Your task to perform on an android device: Empty the shopping cart on amazon.com. Add bose soundlink to the cart on amazon.com Image 0: 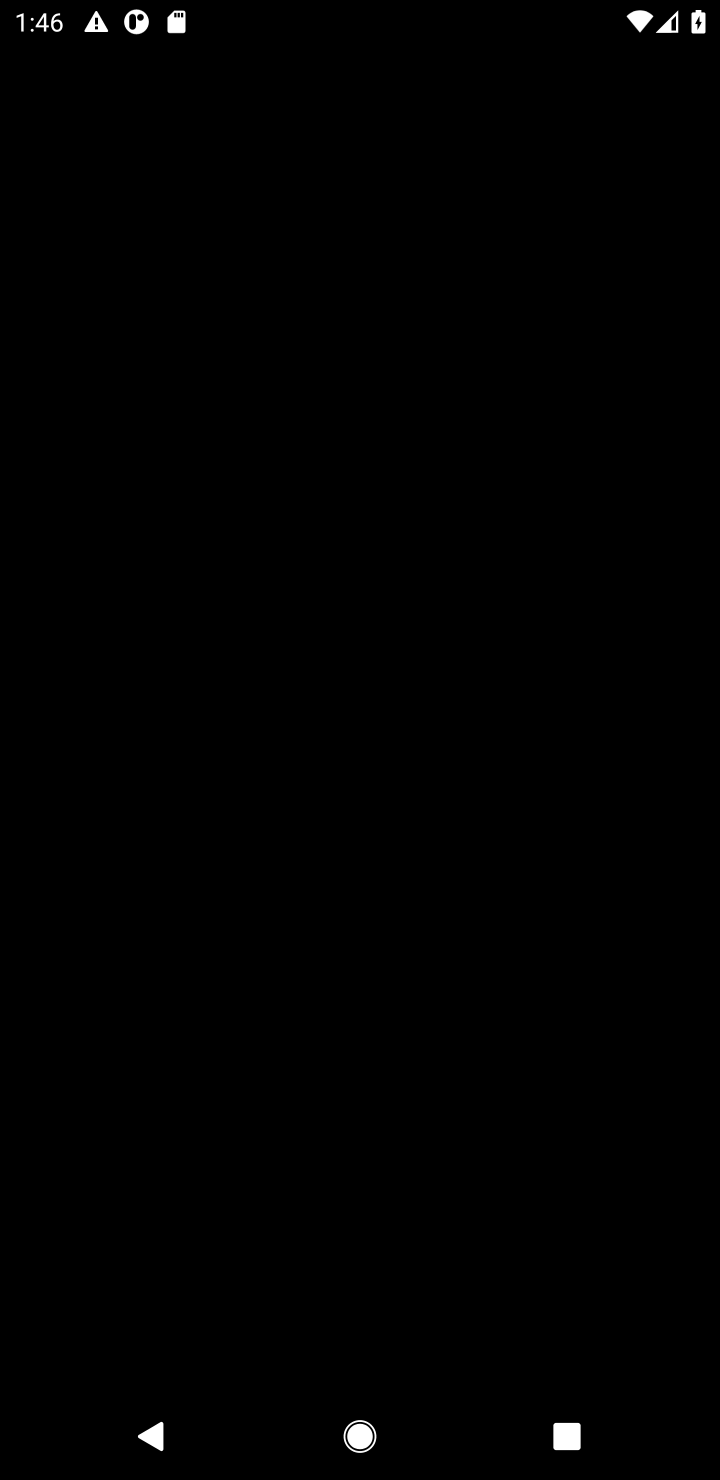
Step 0: press home button
Your task to perform on an android device: Empty the shopping cart on amazon.com. Add bose soundlink to the cart on amazon.com Image 1: 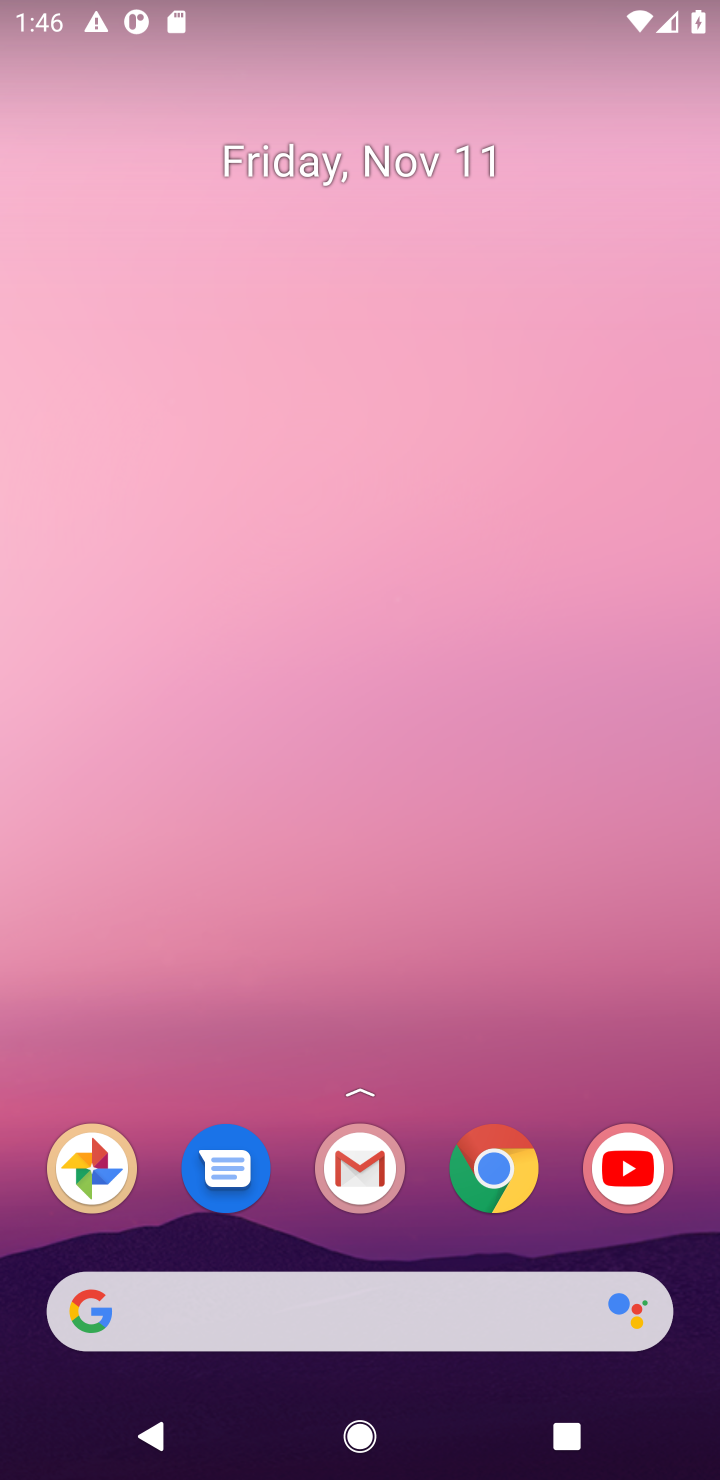
Step 1: click (485, 1179)
Your task to perform on an android device: Empty the shopping cart on amazon.com. Add bose soundlink to the cart on amazon.com Image 2: 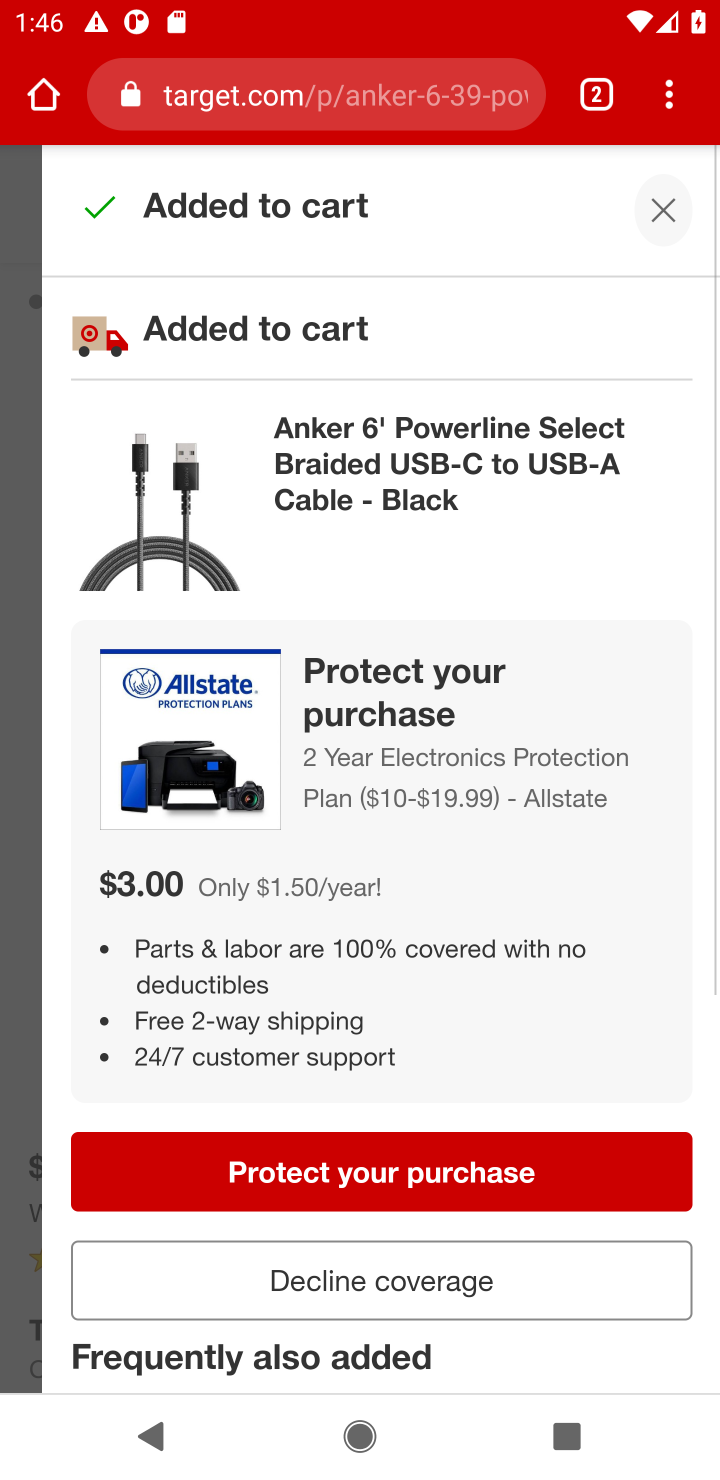
Step 2: click (354, 84)
Your task to perform on an android device: Empty the shopping cart on amazon.com. Add bose soundlink to the cart on amazon.com Image 3: 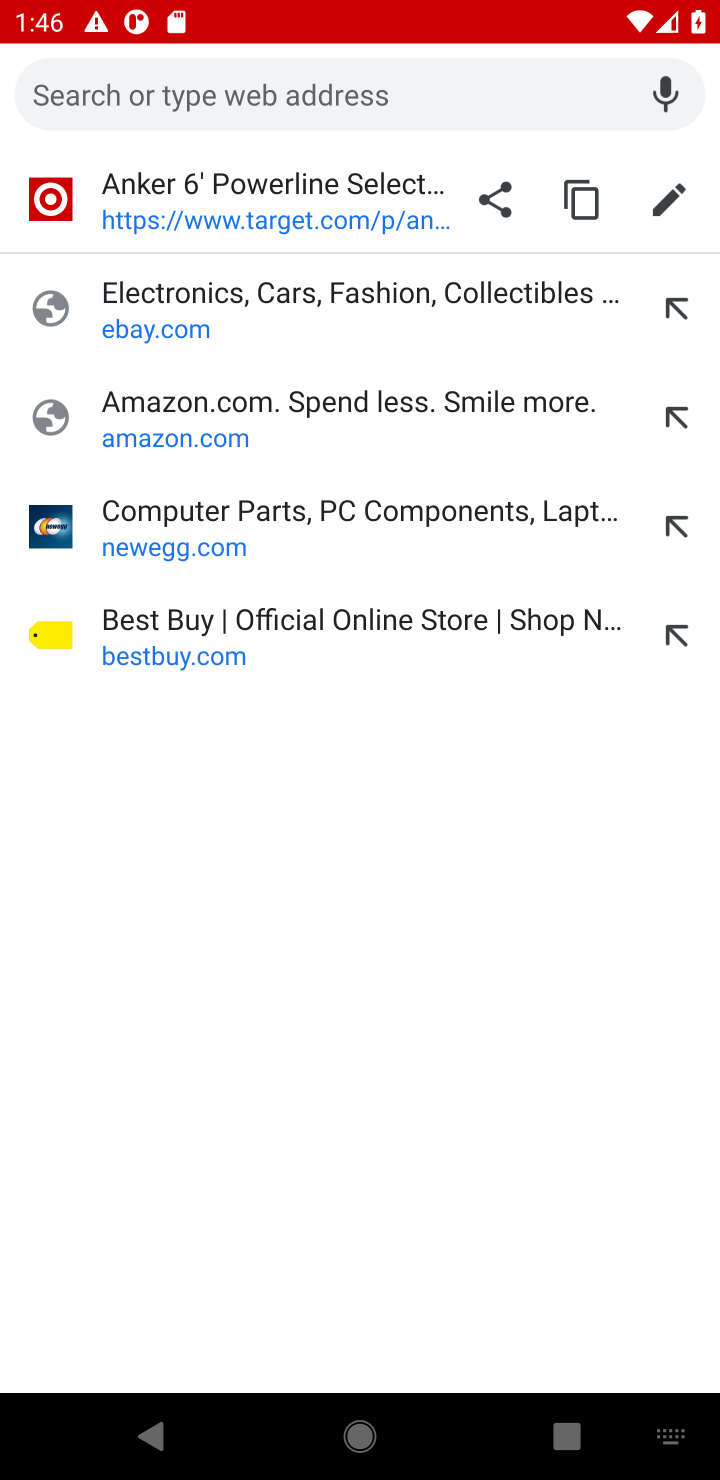
Step 3: click (195, 423)
Your task to perform on an android device: Empty the shopping cart on amazon.com. Add bose soundlink to the cart on amazon.com Image 4: 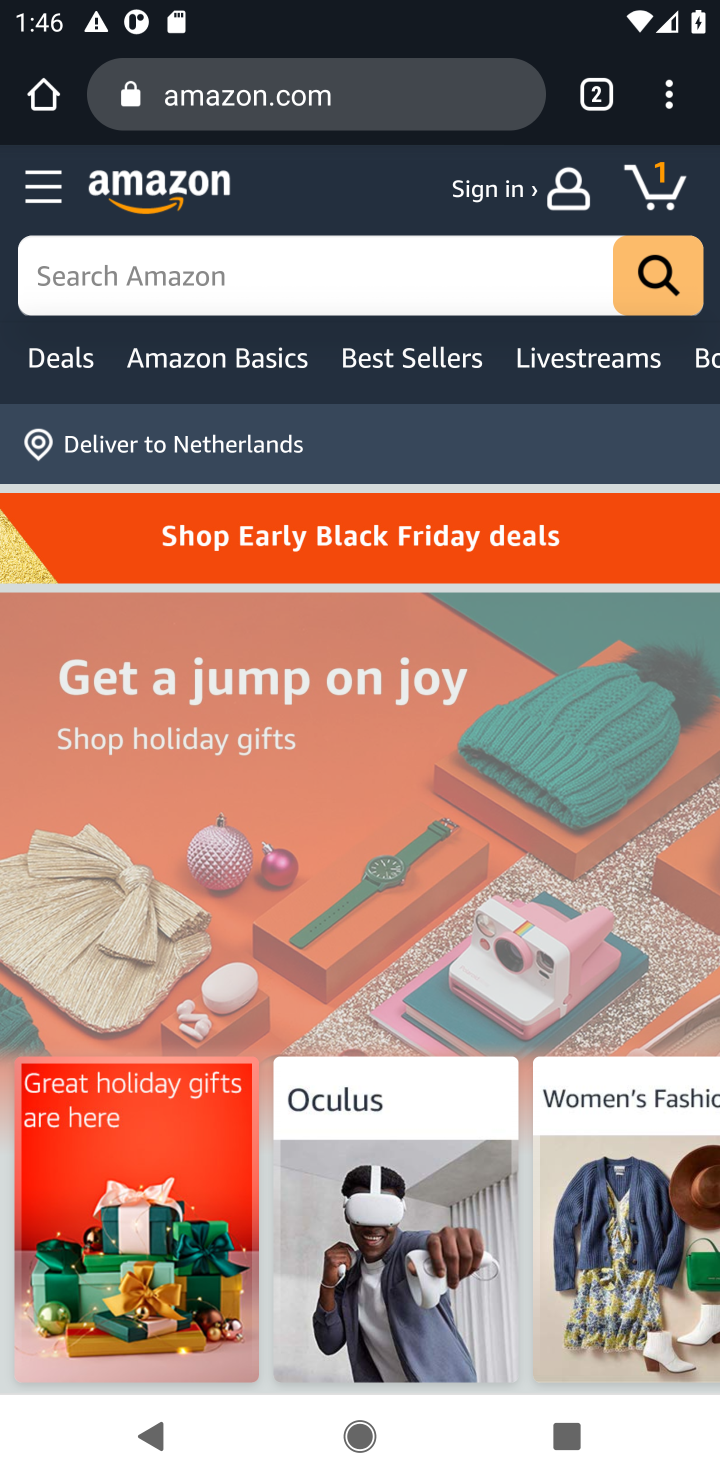
Step 4: click (654, 193)
Your task to perform on an android device: Empty the shopping cart on amazon.com. Add bose soundlink to the cart on amazon.com Image 5: 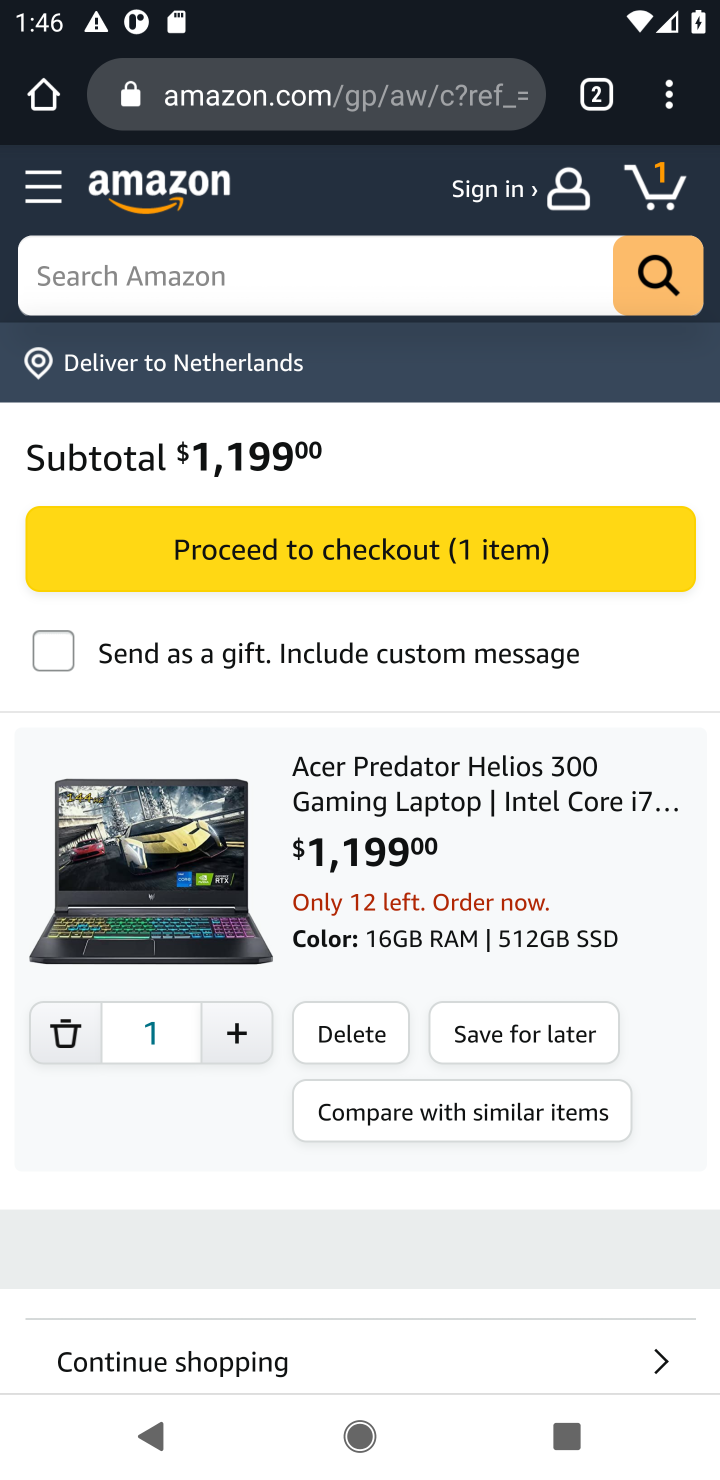
Step 5: click (332, 1033)
Your task to perform on an android device: Empty the shopping cart on amazon.com. Add bose soundlink to the cart on amazon.com Image 6: 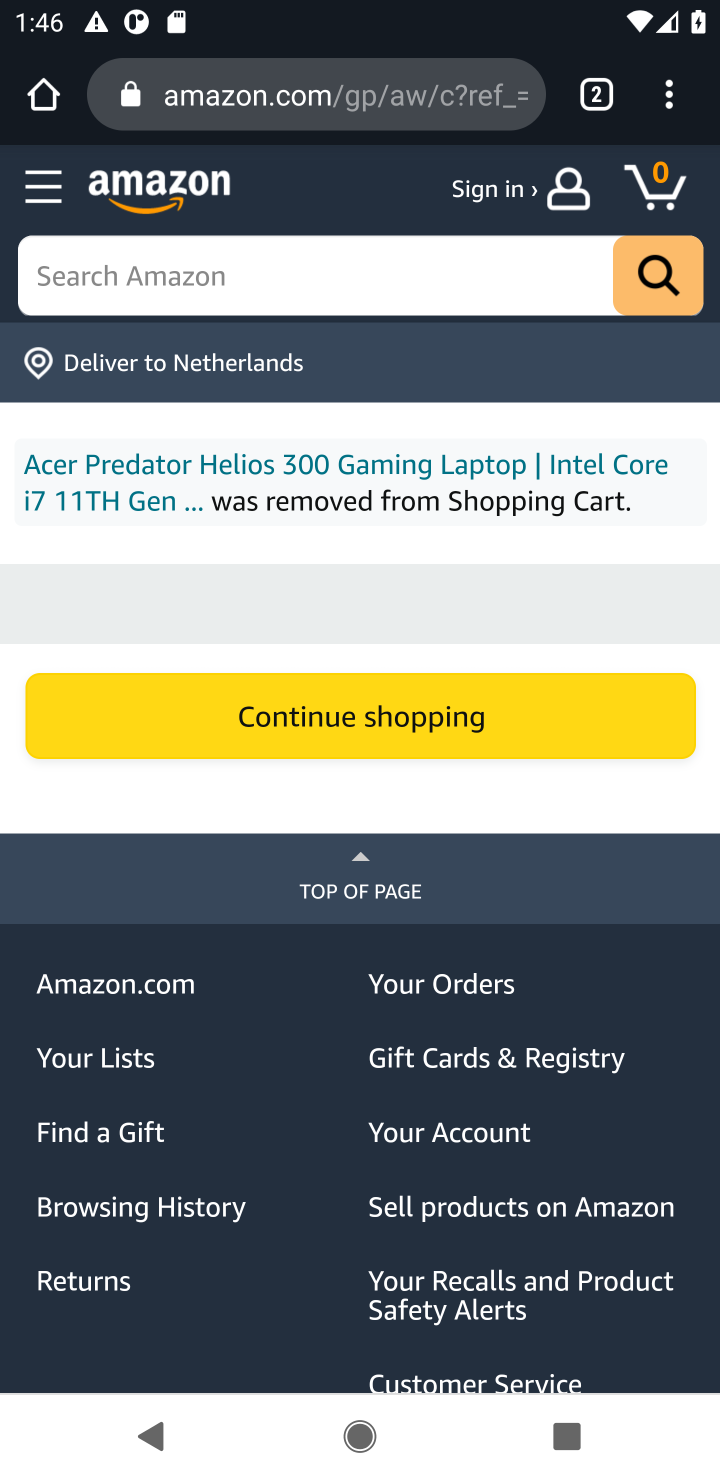
Step 6: click (177, 274)
Your task to perform on an android device: Empty the shopping cart on amazon.com. Add bose soundlink to the cart on amazon.com Image 7: 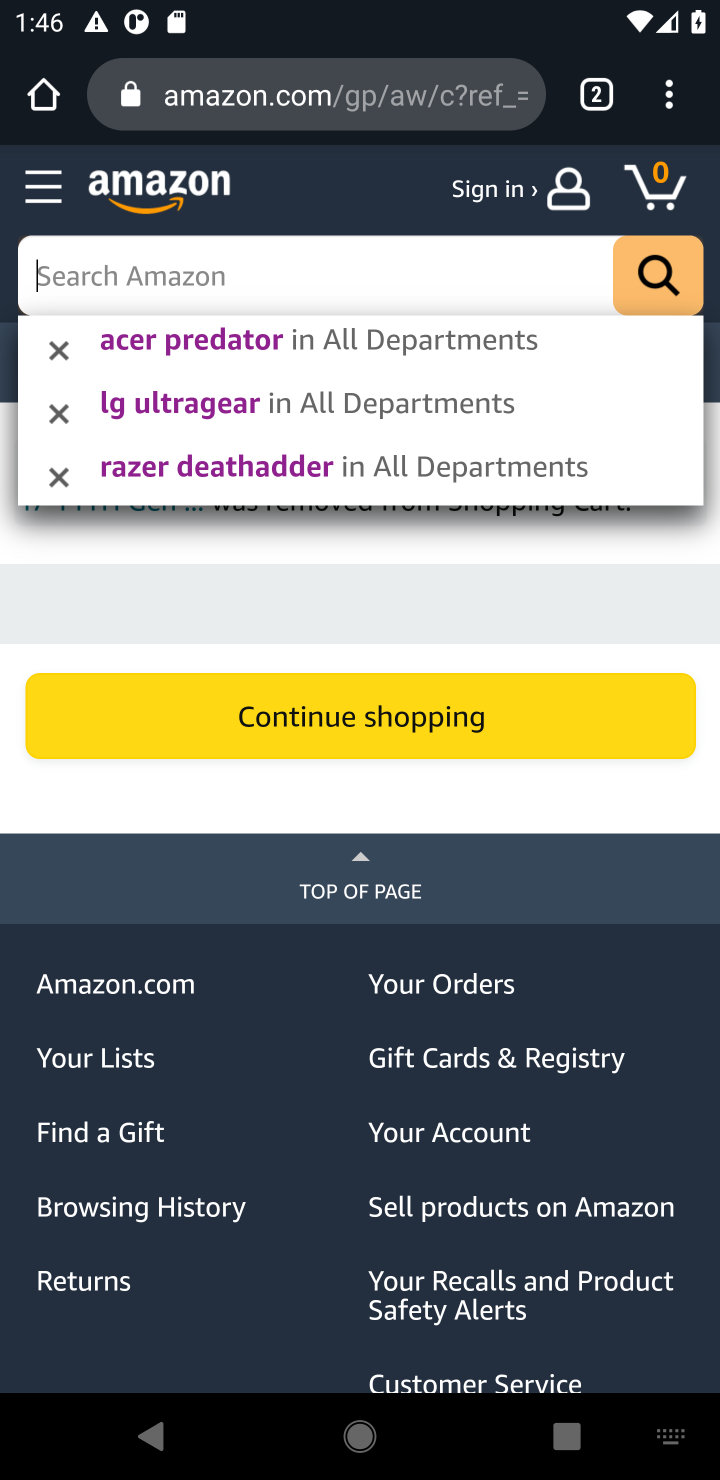
Step 7: type "bose soundlink"
Your task to perform on an android device: Empty the shopping cart on amazon.com. Add bose soundlink to the cart on amazon.com Image 8: 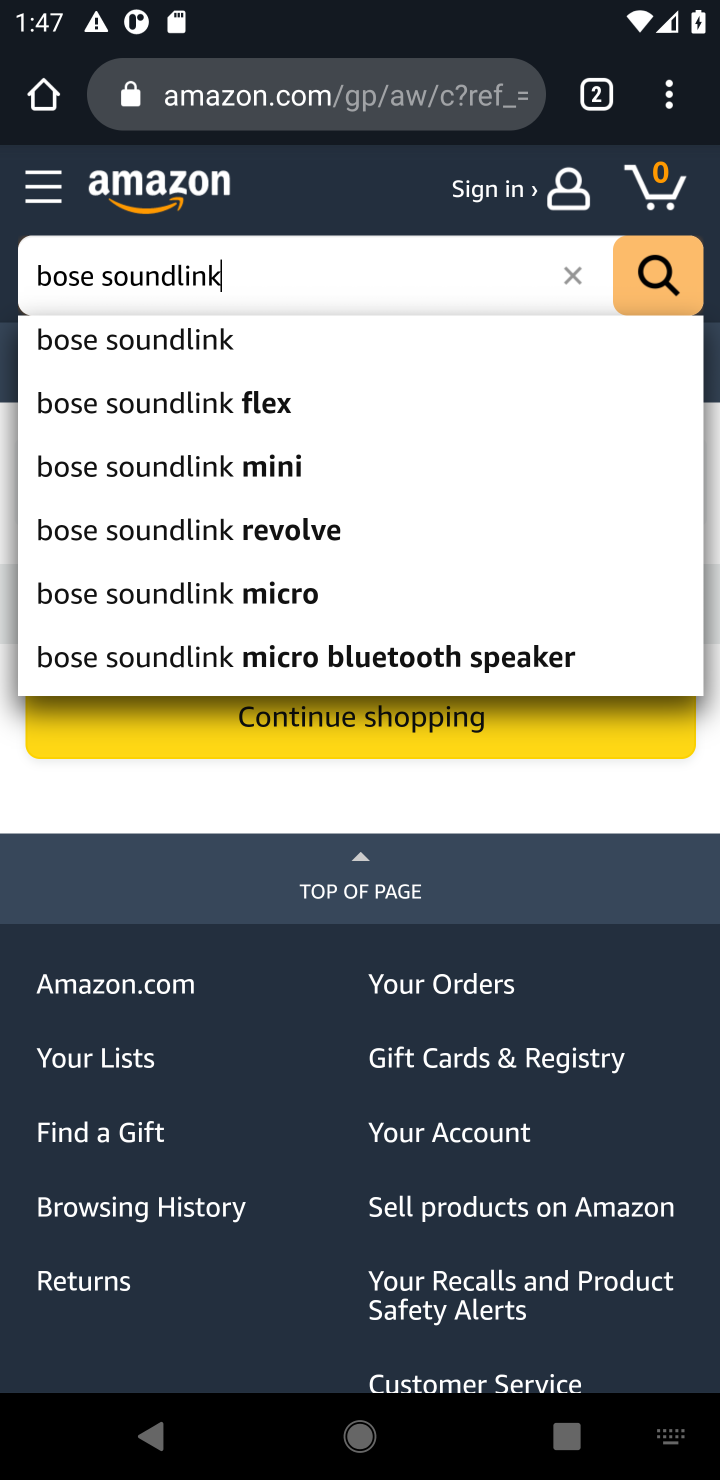
Step 8: click (122, 345)
Your task to perform on an android device: Empty the shopping cart on amazon.com. Add bose soundlink to the cart on amazon.com Image 9: 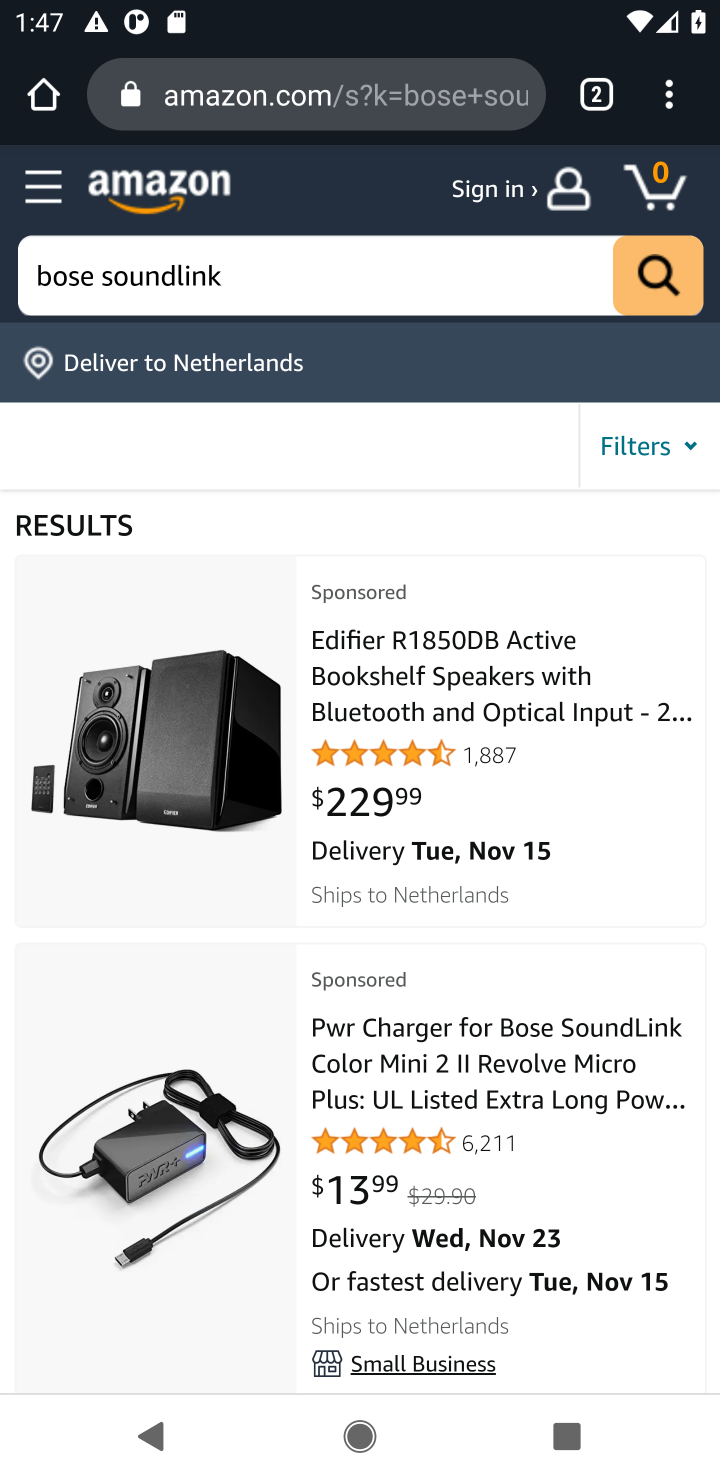
Step 9: drag from (238, 1052) to (228, 519)
Your task to perform on an android device: Empty the shopping cart on amazon.com. Add bose soundlink to the cart on amazon.com Image 10: 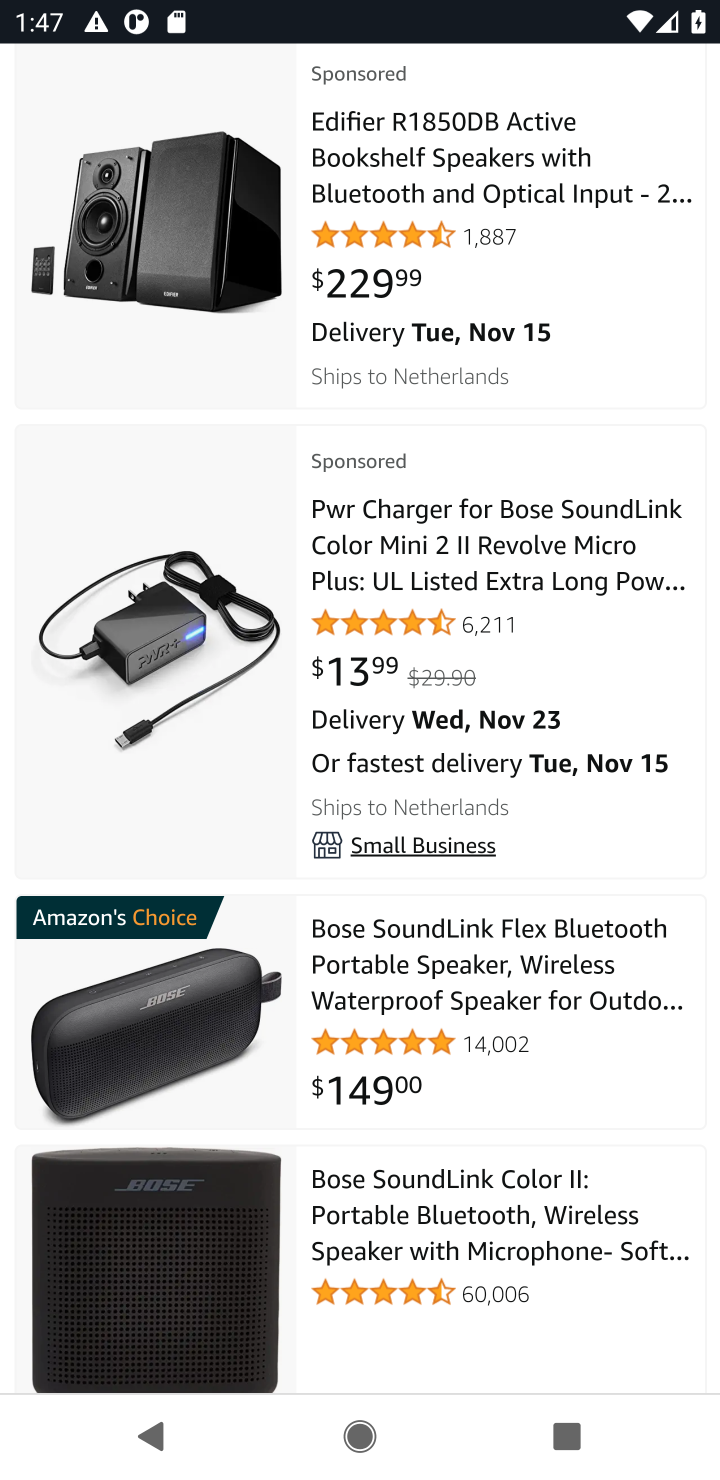
Step 10: click (207, 1005)
Your task to perform on an android device: Empty the shopping cart on amazon.com. Add bose soundlink to the cart on amazon.com Image 11: 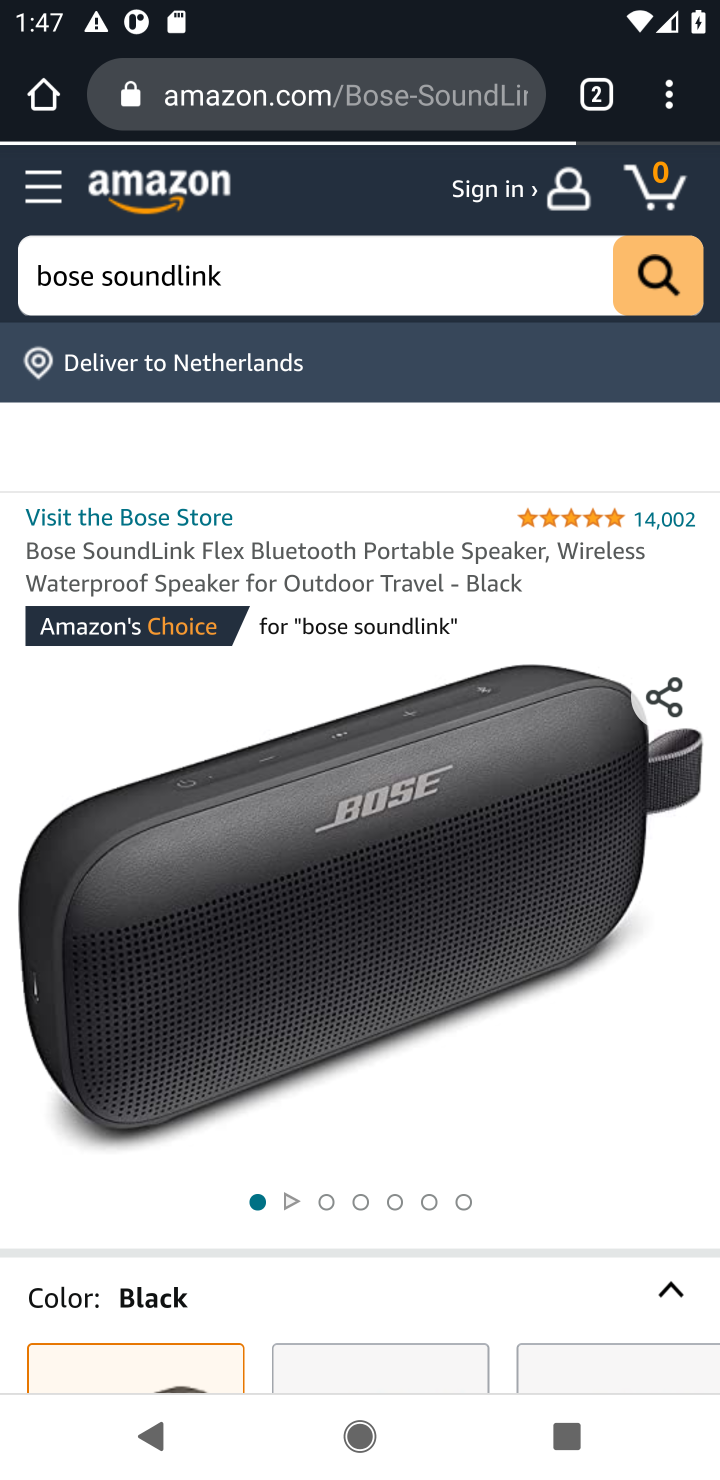
Step 11: drag from (387, 1112) to (381, 545)
Your task to perform on an android device: Empty the shopping cart on amazon.com. Add bose soundlink to the cart on amazon.com Image 12: 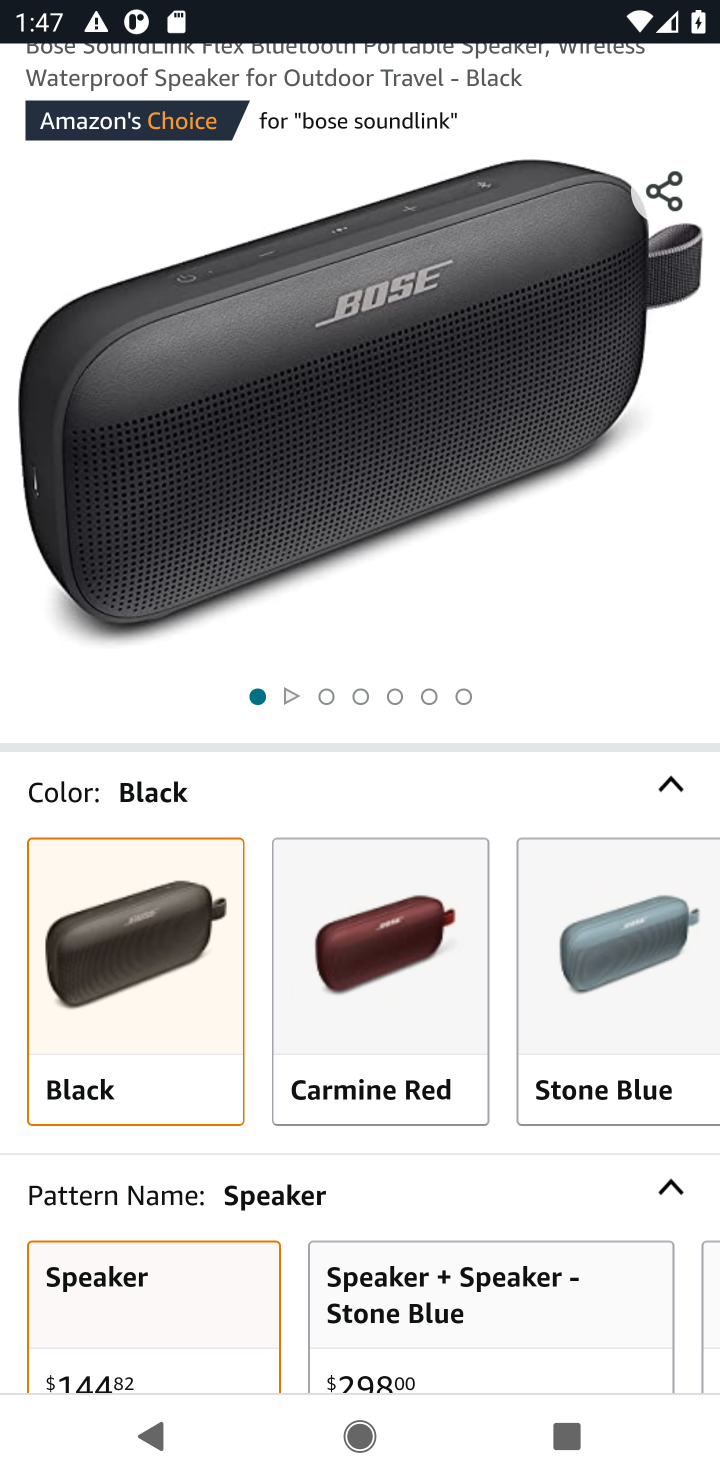
Step 12: drag from (421, 1110) to (371, 363)
Your task to perform on an android device: Empty the shopping cart on amazon.com. Add bose soundlink to the cart on amazon.com Image 13: 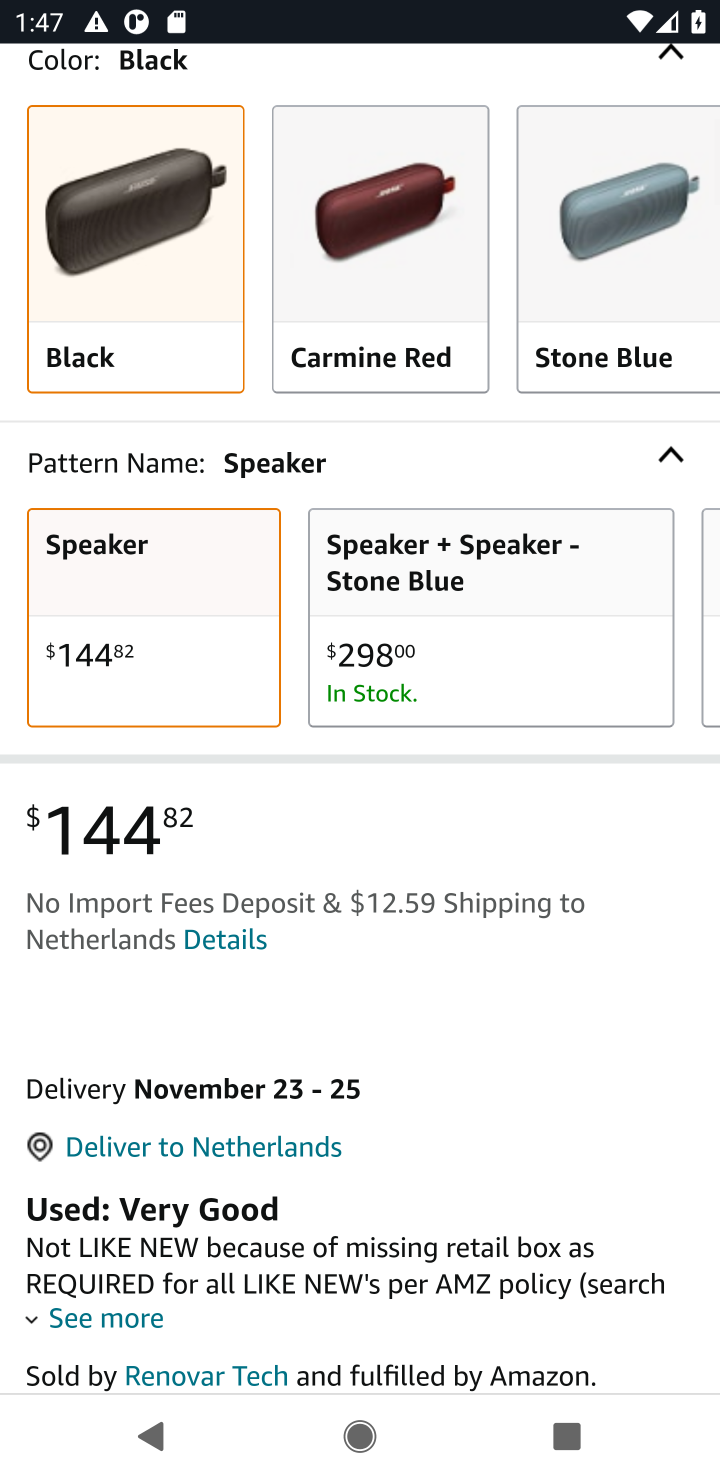
Step 13: drag from (458, 1052) to (425, 481)
Your task to perform on an android device: Empty the shopping cart on amazon.com. Add bose soundlink to the cart on amazon.com Image 14: 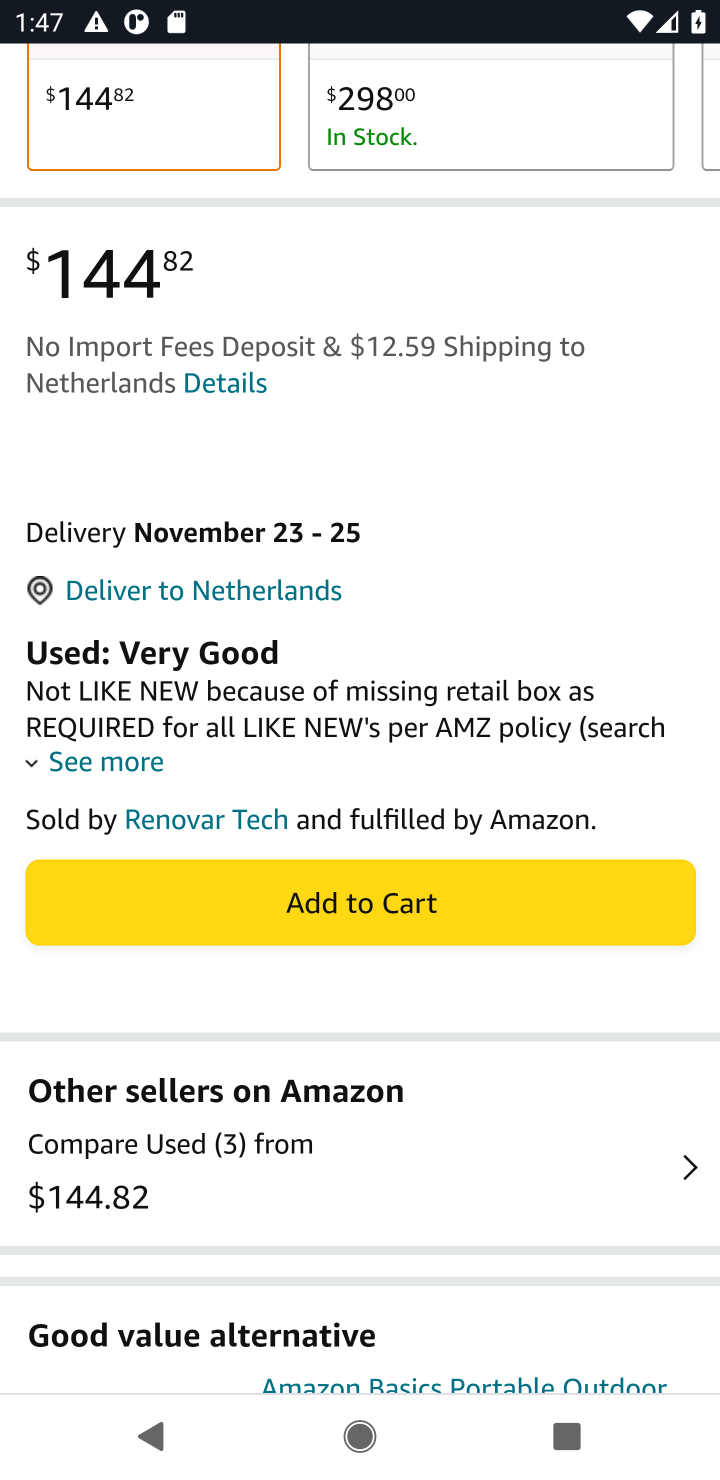
Step 14: click (369, 917)
Your task to perform on an android device: Empty the shopping cart on amazon.com. Add bose soundlink to the cart on amazon.com Image 15: 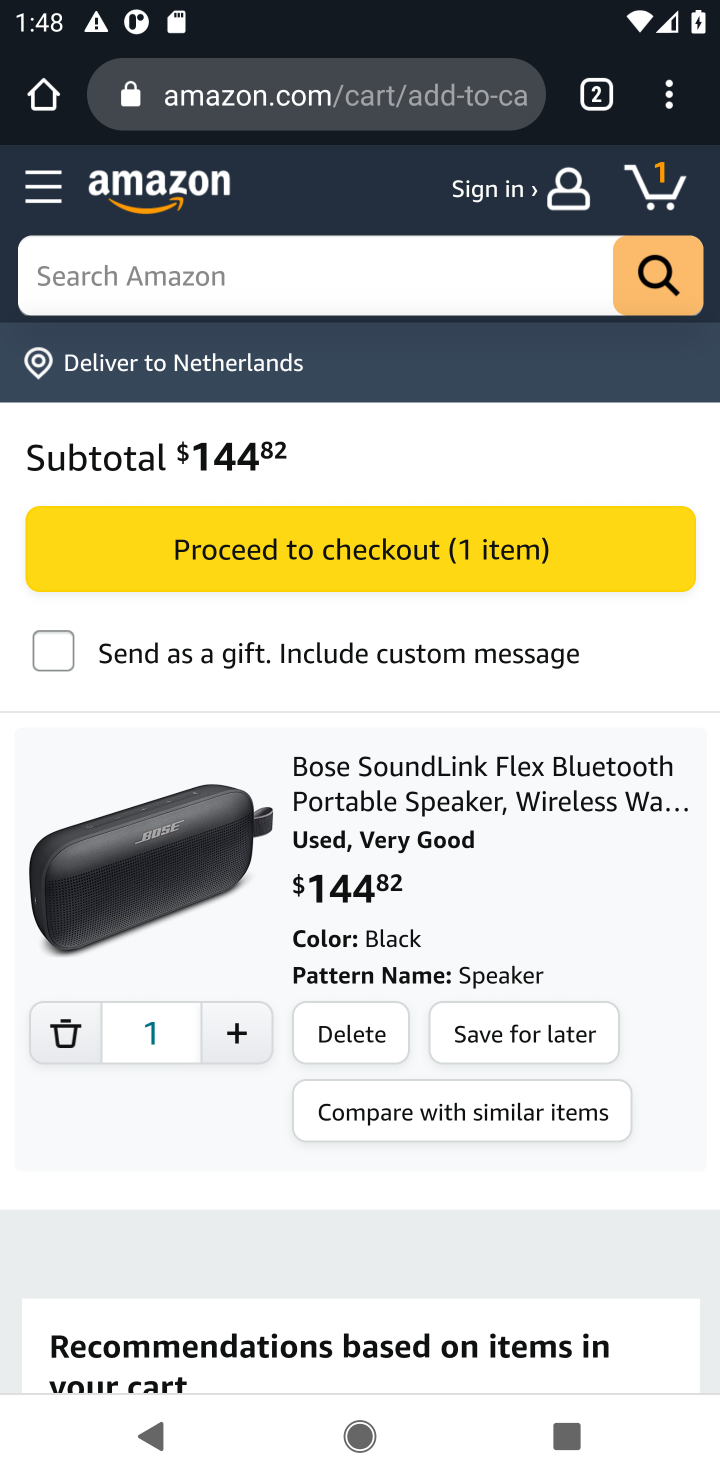
Step 15: task complete